Your task to perform on an android device: open a bookmark in the chrome app Image 0: 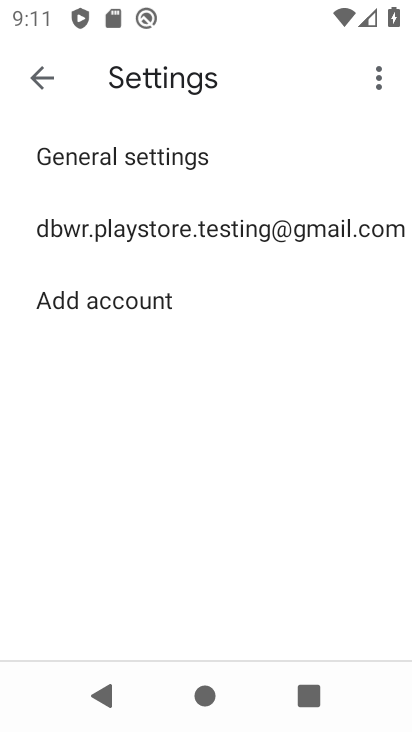
Step 0: press home button
Your task to perform on an android device: open a bookmark in the chrome app Image 1: 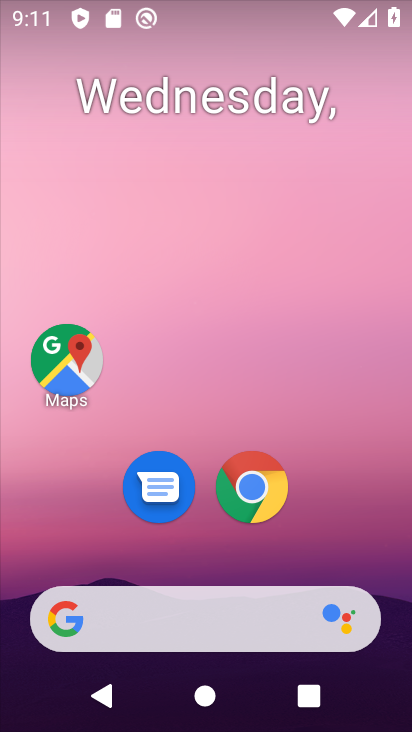
Step 1: click (256, 503)
Your task to perform on an android device: open a bookmark in the chrome app Image 2: 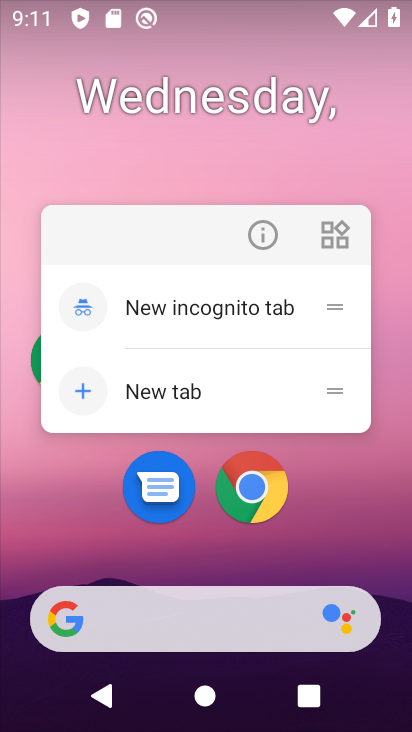
Step 2: click (259, 487)
Your task to perform on an android device: open a bookmark in the chrome app Image 3: 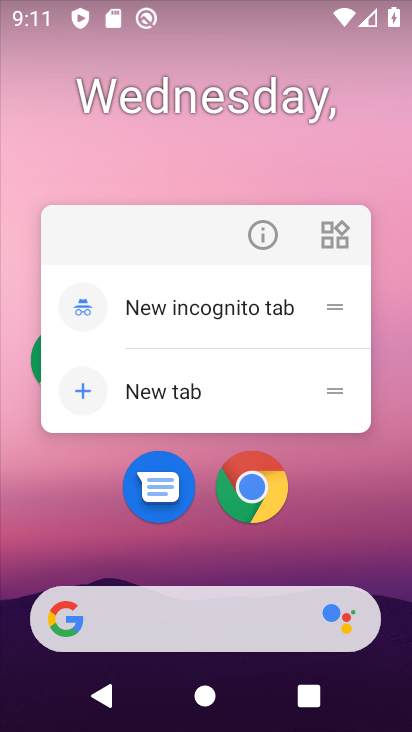
Step 3: click (250, 486)
Your task to perform on an android device: open a bookmark in the chrome app Image 4: 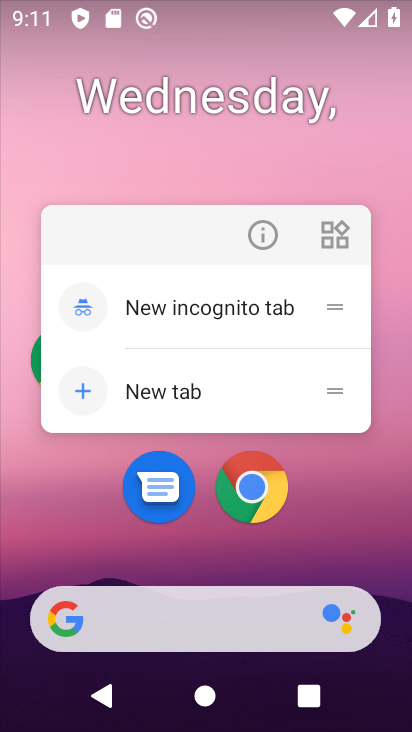
Step 4: click (250, 486)
Your task to perform on an android device: open a bookmark in the chrome app Image 5: 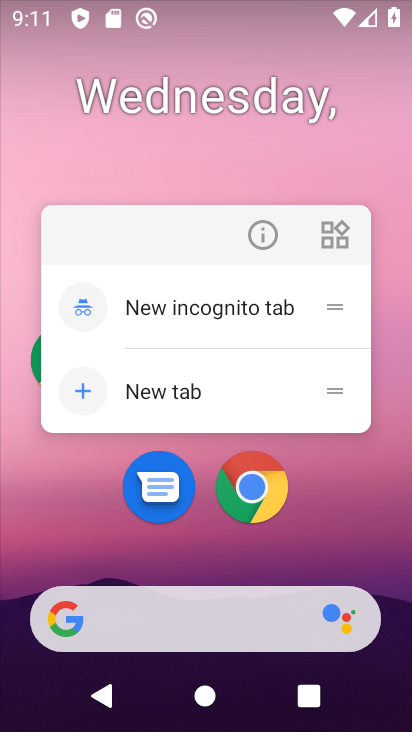
Step 5: click (250, 486)
Your task to perform on an android device: open a bookmark in the chrome app Image 6: 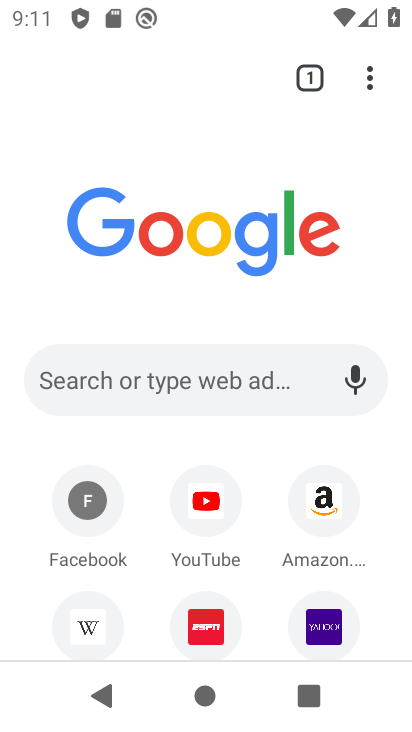
Step 6: click (364, 88)
Your task to perform on an android device: open a bookmark in the chrome app Image 7: 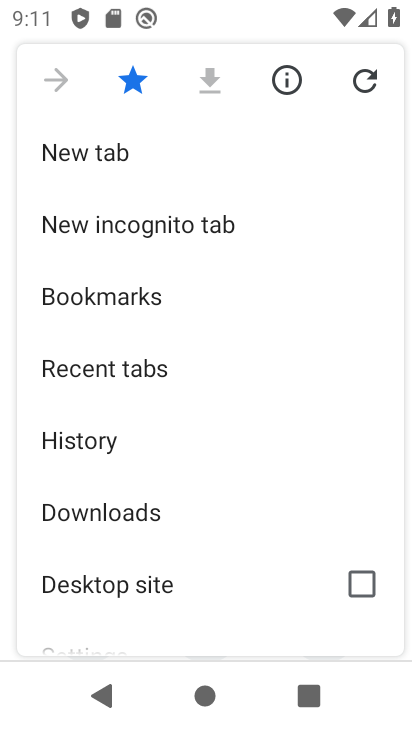
Step 7: click (116, 299)
Your task to perform on an android device: open a bookmark in the chrome app Image 8: 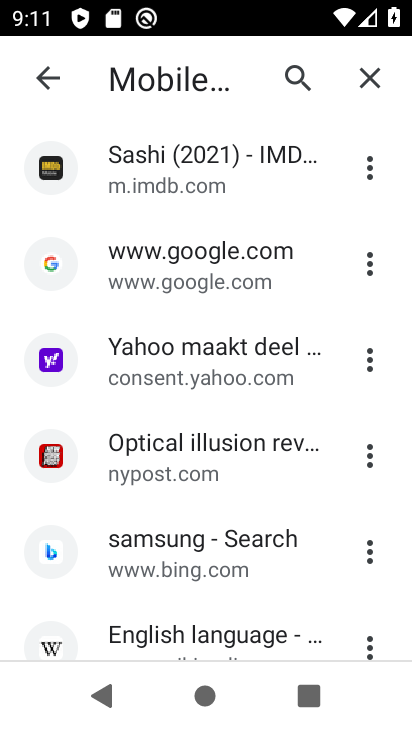
Step 8: task complete